Your task to perform on an android device: Open Youtube and go to "Your channel" Image 0: 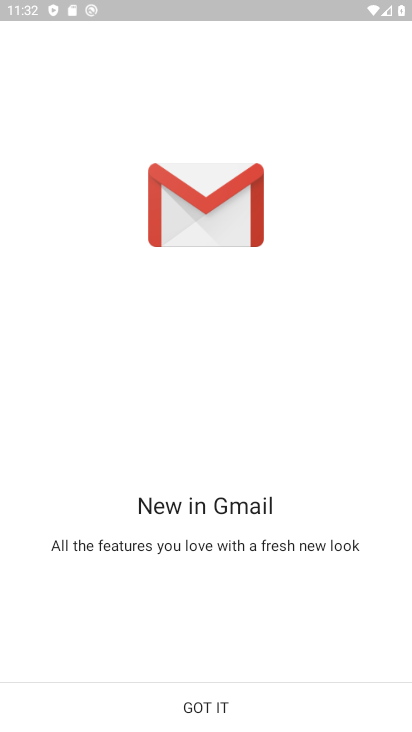
Step 0: click (204, 712)
Your task to perform on an android device: Open Youtube and go to "Your channel" Image 1: 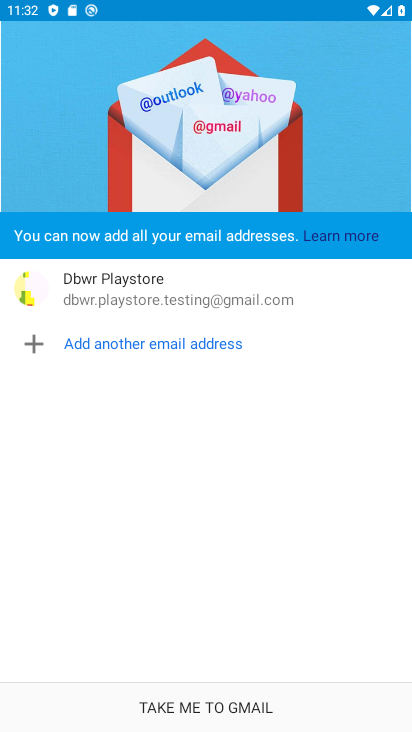
Step 1: press home button
Your task to perform on an android device: Open Youtube and go to "Your channel" Image 2: 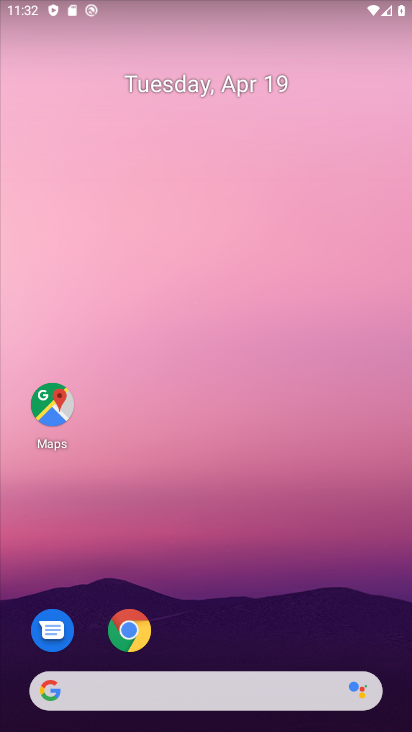
Step 2: drag from (270, 591) to (291, 147)
Your task to perform on an android device: Open Youtube and go to "Your channel" Image 3: 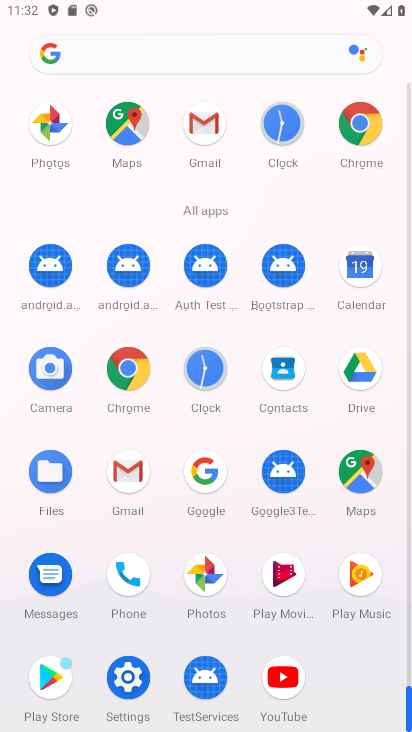
Step 3: click (277, 675)
Your task to perform on an android device: Open Youtube and go to "Your channel" Image 4: 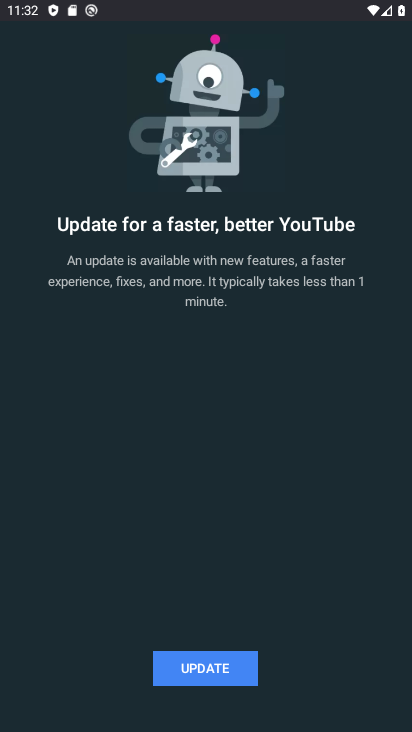
Step 4: click (222, 662)
Your task to perform on an android device: Open Youtube and go to "Your channel" Image 5: 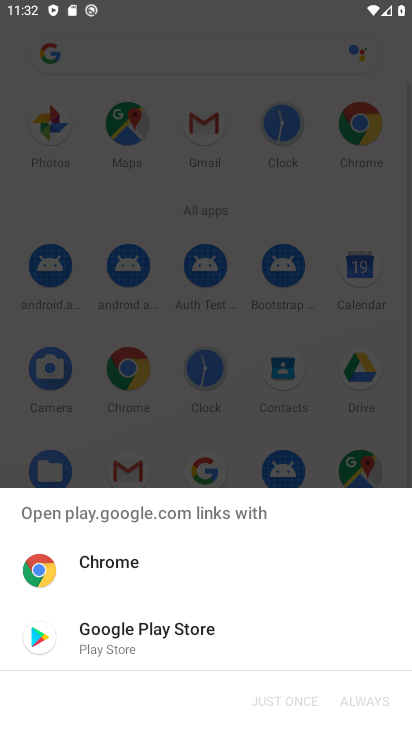
Step 5: press home button
Your task to perform on an android device: Open Youtube and go to "Your channel" Image 6: 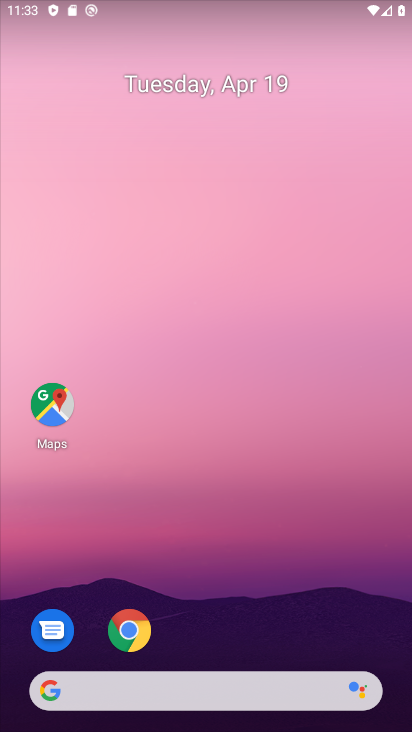
Step 6: drag from (226, 629) to (368, 6)
Your task to perform on an android device: Open Youtube and go to "Your channel" Image 7: 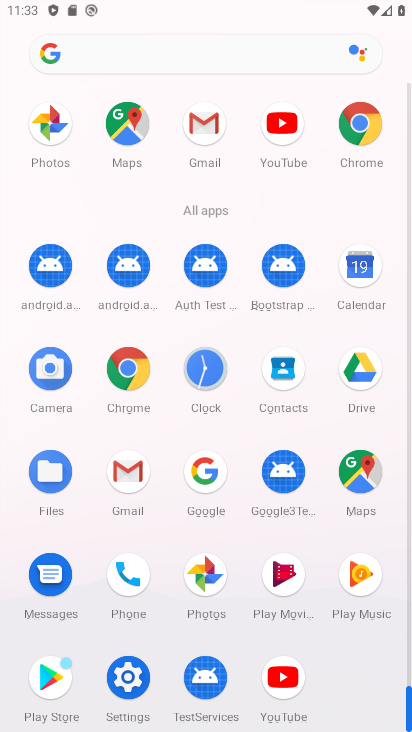
Step 7: click (284, 668)
Your task to perform on an android device: Open Youtube and go to "Your channel" Image 8: 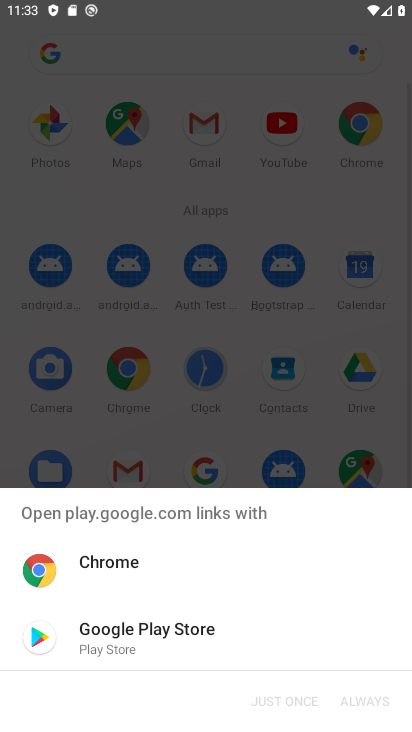
Step 8: click (109, 629)
Your task to perform on an android device: Open Youtube and go to "Your channel" Image 9: 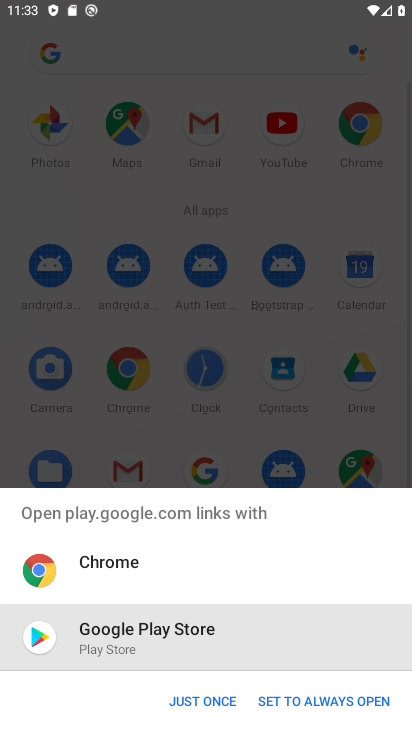
Step 9: click (205, 695)
Your task to perform on an android device: Open Youtube and go to "Your channel" Image 10: 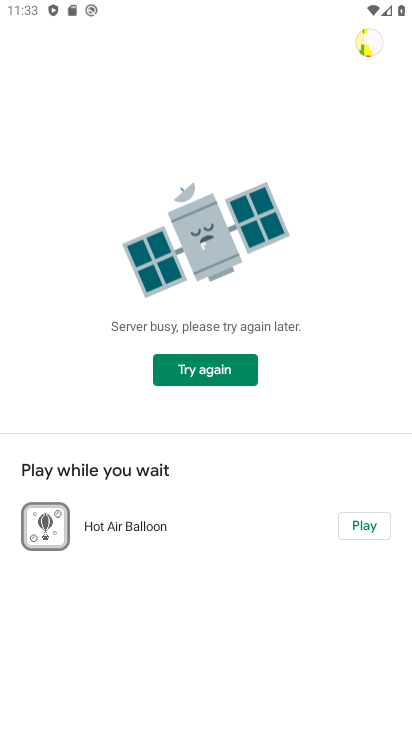
Step 10: click (219, 370)
Your task to perform on an android device: Open Youtube and go to "Your channel" Image 11: 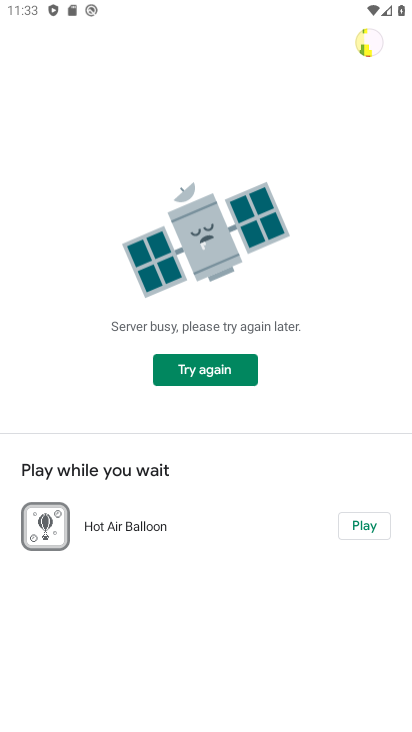
Step 11: task complete